Your task to perform on an android device: turn off priority inbox in the gmail app Image 0: 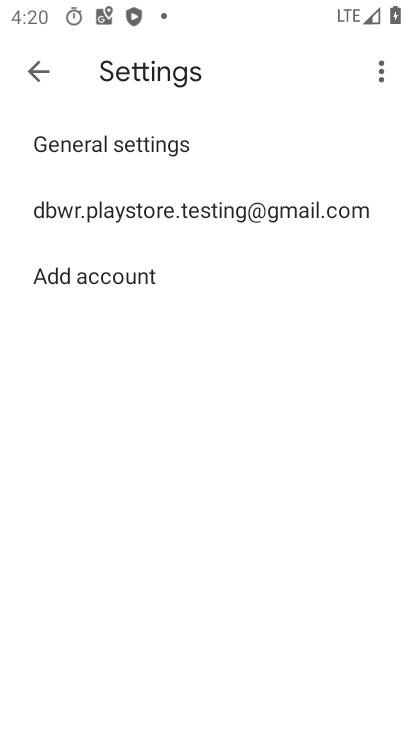
Step 0: press home button
Your task to perform on an android device: turn off priority inbox in the gmail app Image 1: 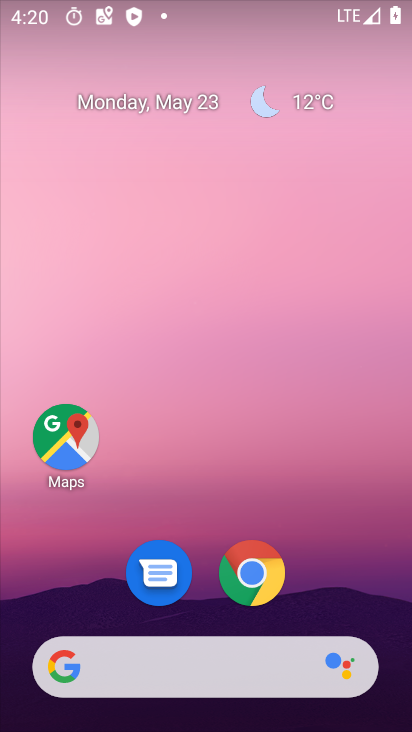
Step 1: drag from (16, 646) to (317, 106)
Your task to perform on an android device: turn off priority inbox in the gmail app Image 2: 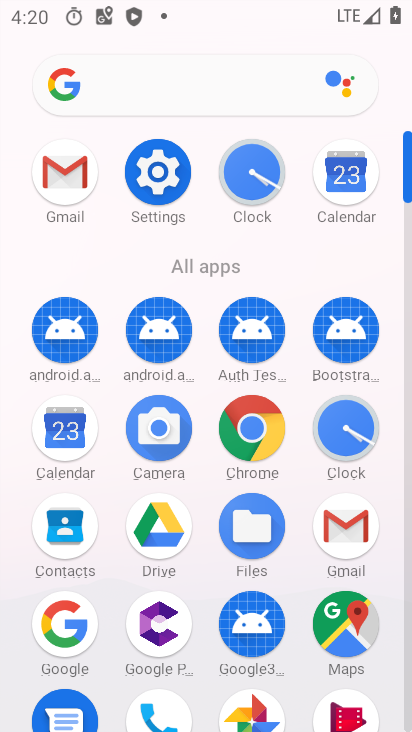
Step 2: click (360, 521)
Your task to perform on an android device: turn off priority inbox in the gmail app Image 3: 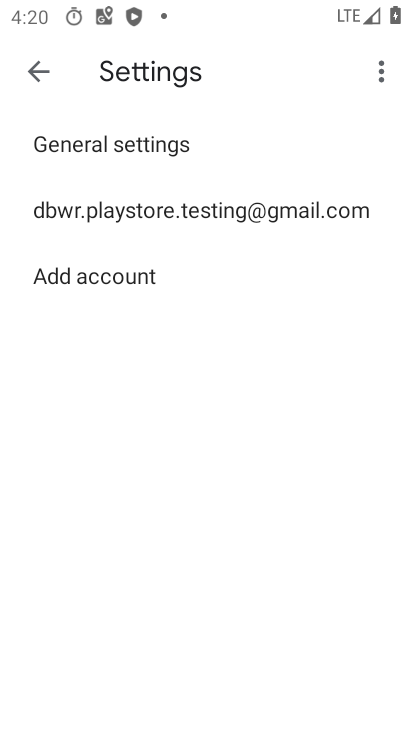
Step 3: click (165, 223)
Your task to perform on an android device: turn off priority inbox in the gmail app Image 4: 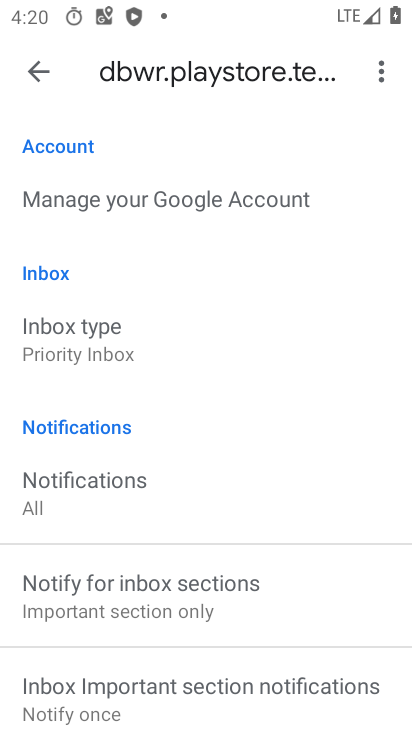
Step 4: click (143, 337)
Your task to perform on an android device: turn off priority inbox in the gmail app Image 5: 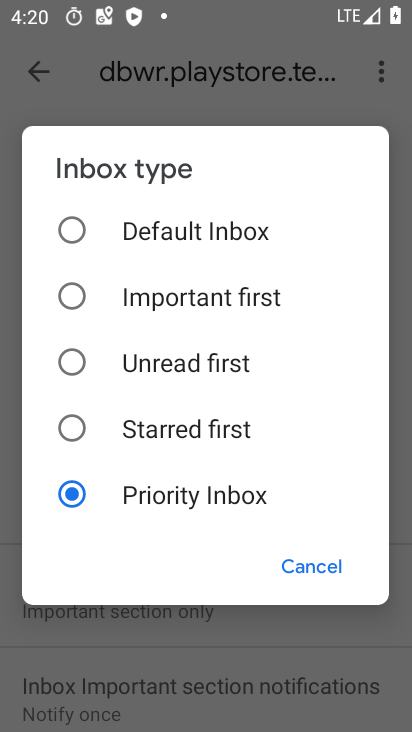
Step 5: click (152, 225)
Your task to perform on an android device: turn off priority inbox in the gmail app Image 6: 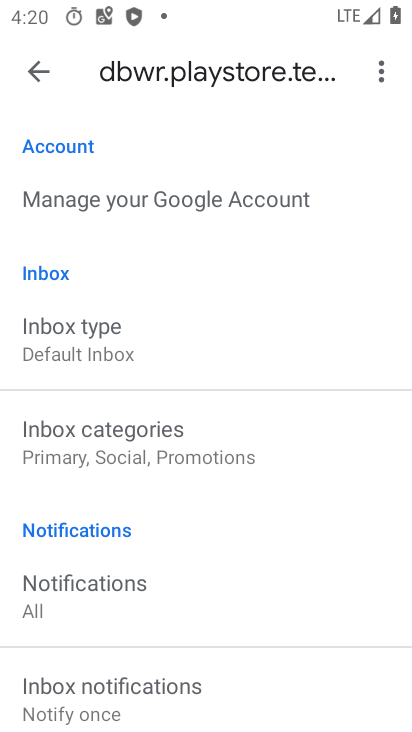
Step 6: task complete